Your task to perform on an android device: When is my next meeting? Image 0: 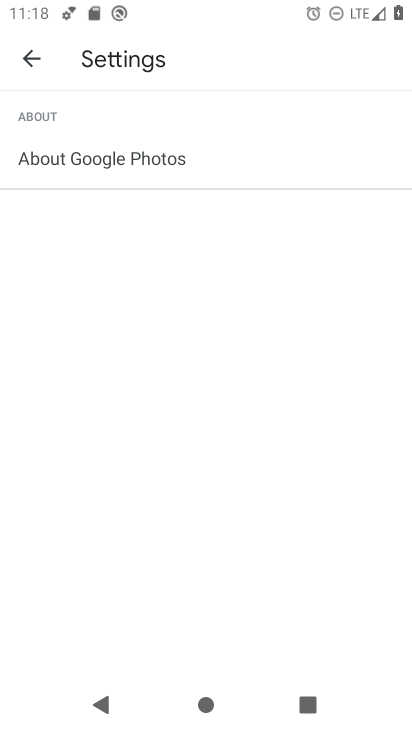
Step 0: press home button
Your task to perform on an android device: When is my next meeting? Image 1: 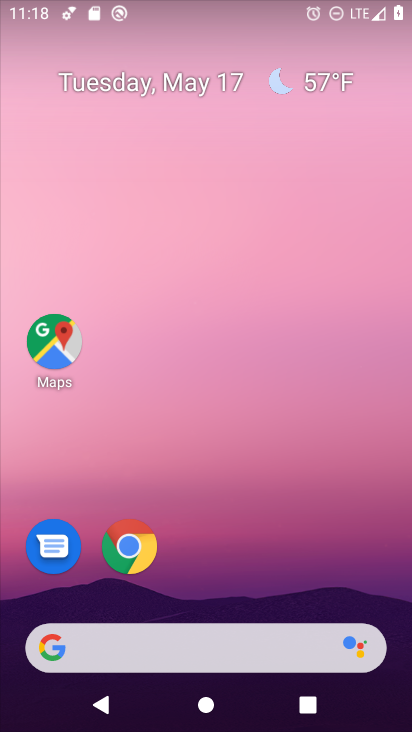
Step 1: drag from (259, 589) to (257, 4)
Your task to perform on an android device: When is my next meeting? Image 2: 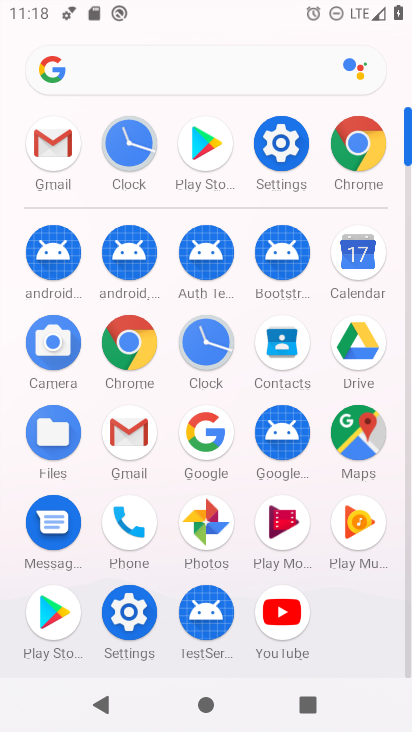
Step 2: click (345, 264)
Your task to perform on an android device: When is my next meeting? Image 3: 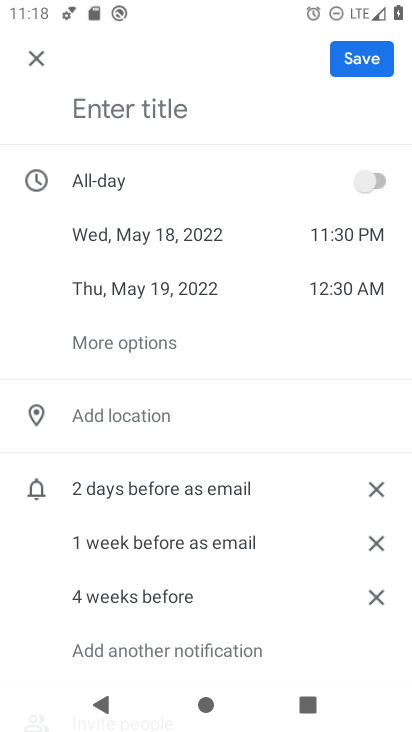
Step 3: click (32, 59)
Your task to perform on an android device: When is my next meeting? Image 4: 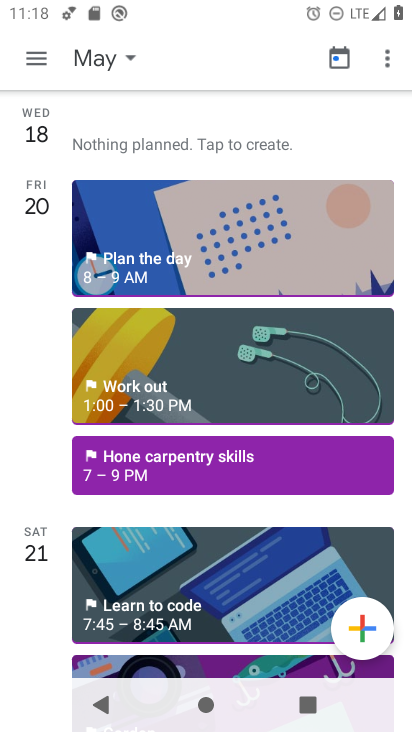
Step 4: click (232, 475)
Your task to perform on an android device: When is my next meeting? Image 5: 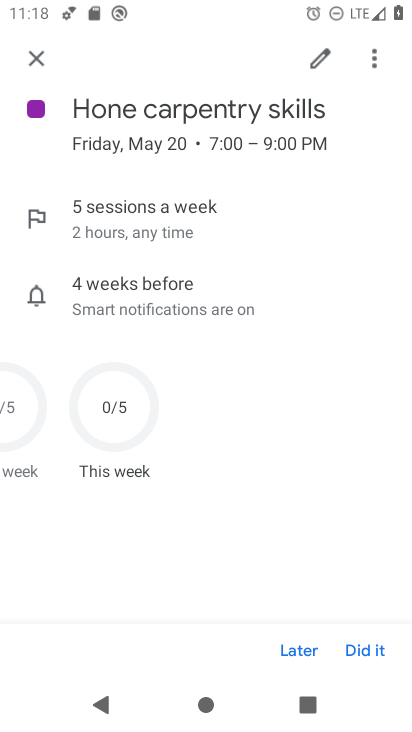
Step 5: task complete